Your task to perform on an android device: Set the phone to "Do not disturb". Image 0: 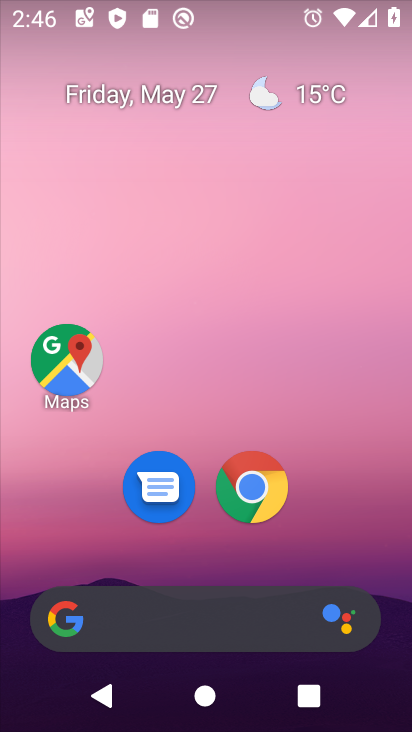
Step 0: drag from (238, 20) to (210, 468)
Your task to perform on an android device: Set the phone to "Do not disturb". Image 1: 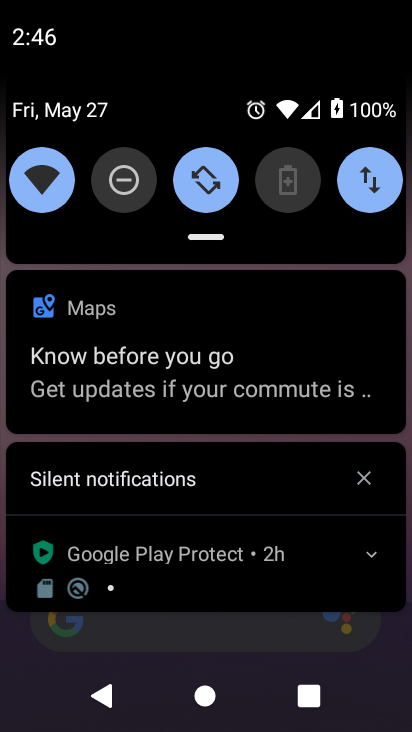
Step 1: click (118, 186)
Your task to perform on an android device: Set the phone to "Do not disturb". Image 2: 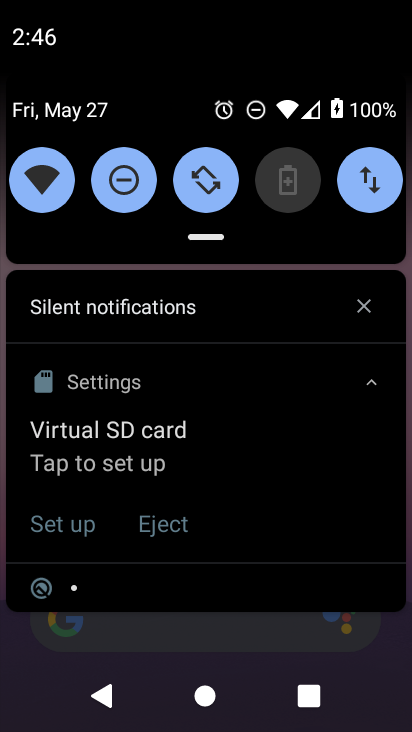
Step 2: task complete